Your task to perform on an android device: uninstall "Google News" Image 0: 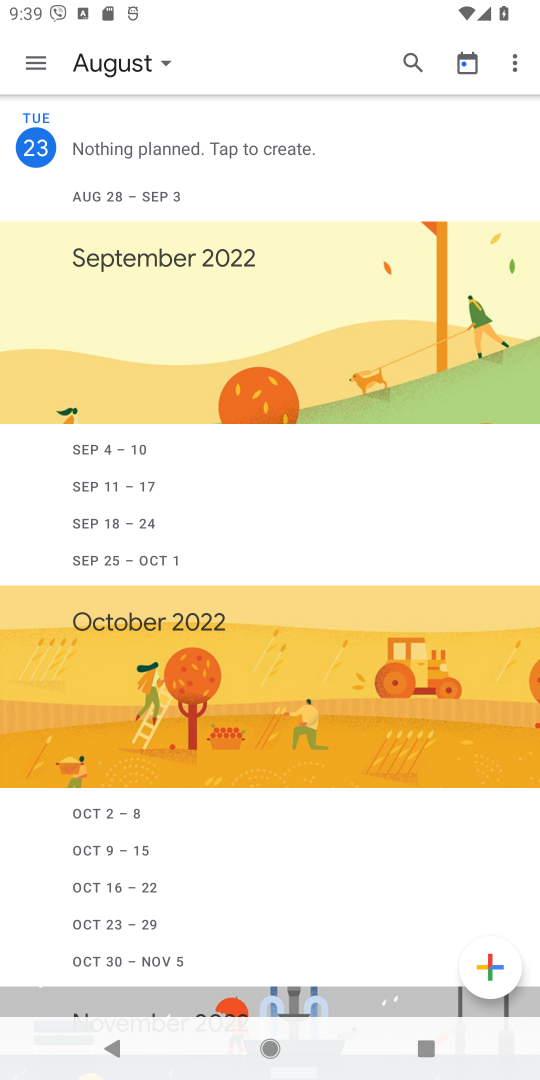
Step 0: press home button
Your task to perform on an android device: uninstall "Google News" Image 1: 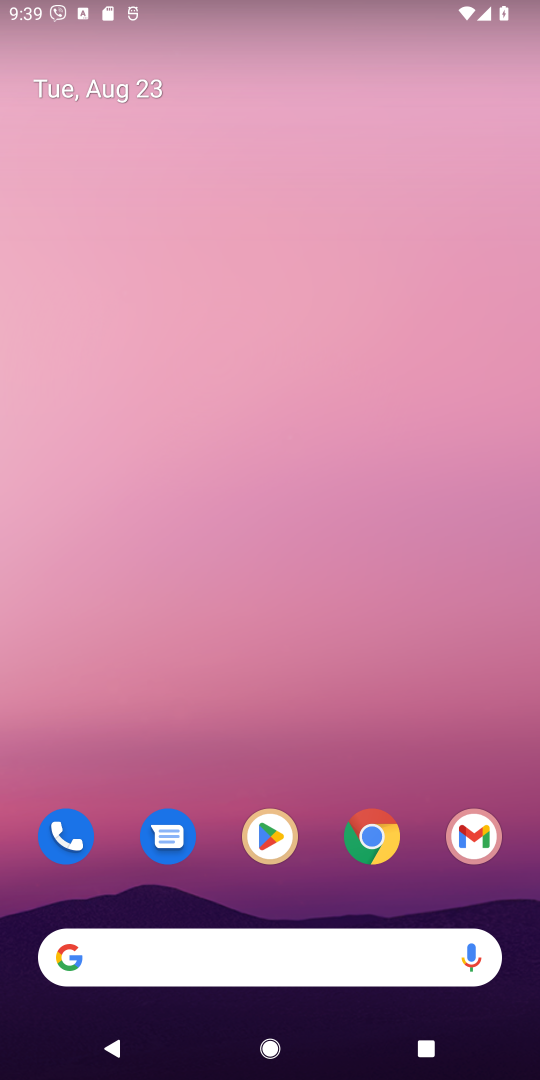
Step 1: click (266, 833)
Your task to perform on an android device: uninstall "Google News" Image 2: 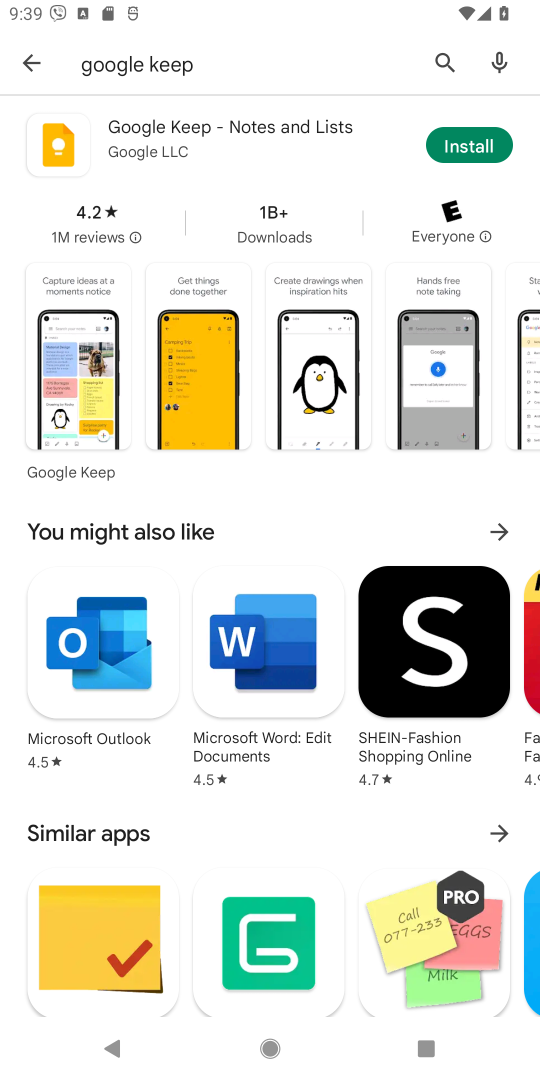
Step 2: click (446, 62)
Your task to perform on an android device: uninstall "Google News" Image 3: 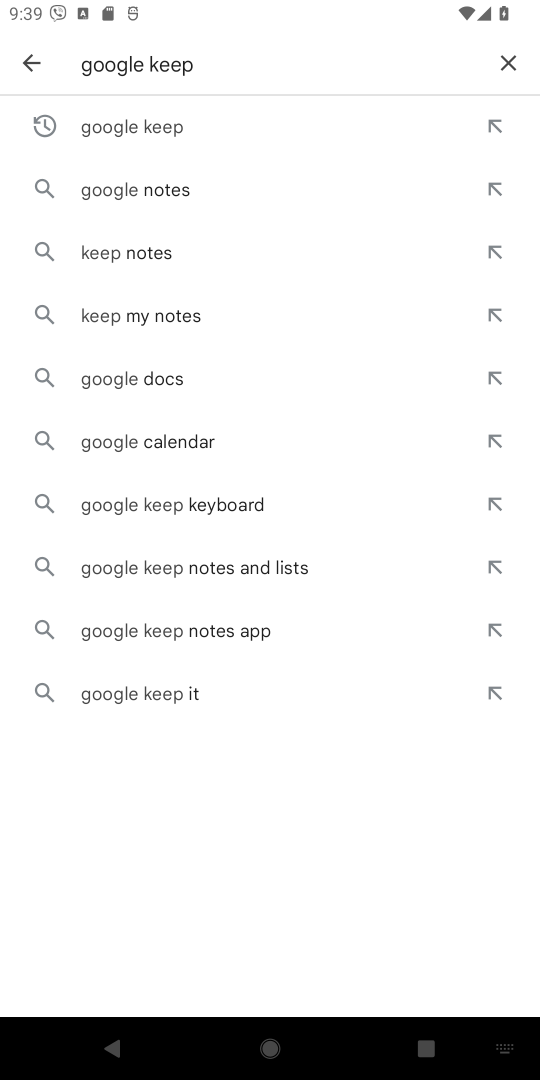
Step 3: click (514, 65)
Your task to perform on an android device: uninstall "Google News" Image 4: 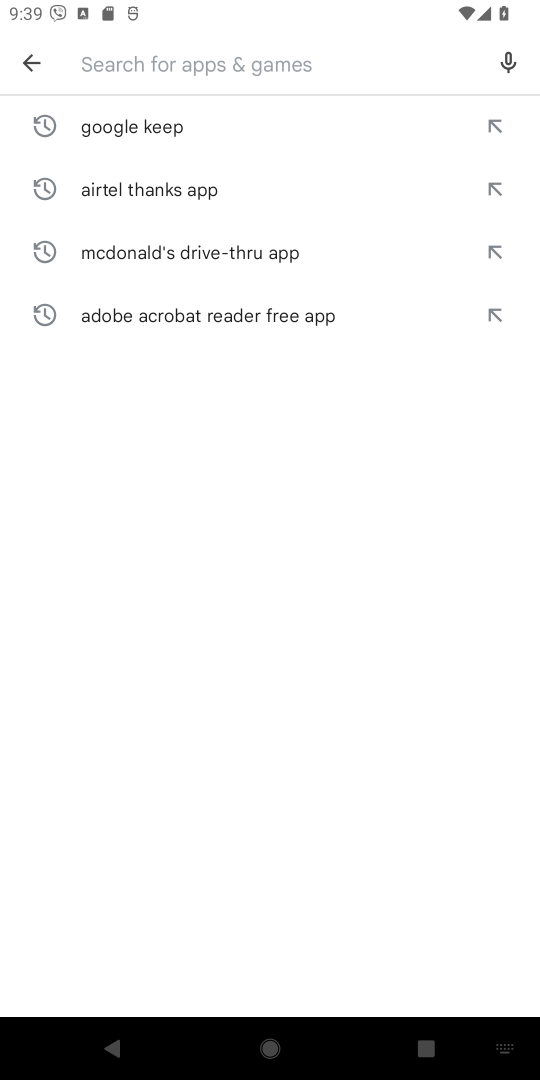
Step 4: type "Google News"
Your task to perform on an android device: uninstall "Google News" Image 5: 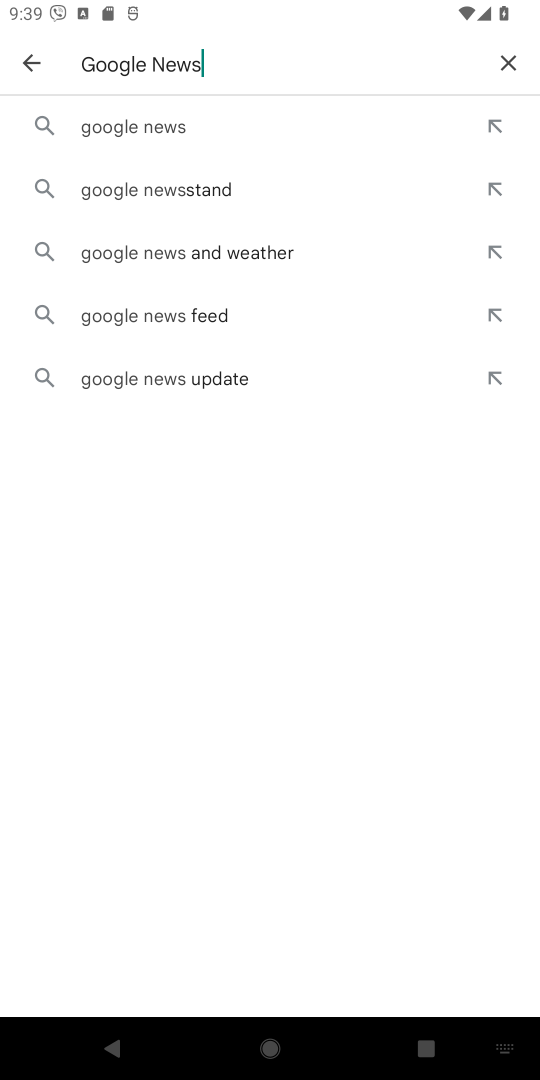
Step 5: click (109, 128)
Your task to perform on an android device: uninstall "Google News" Image 6: 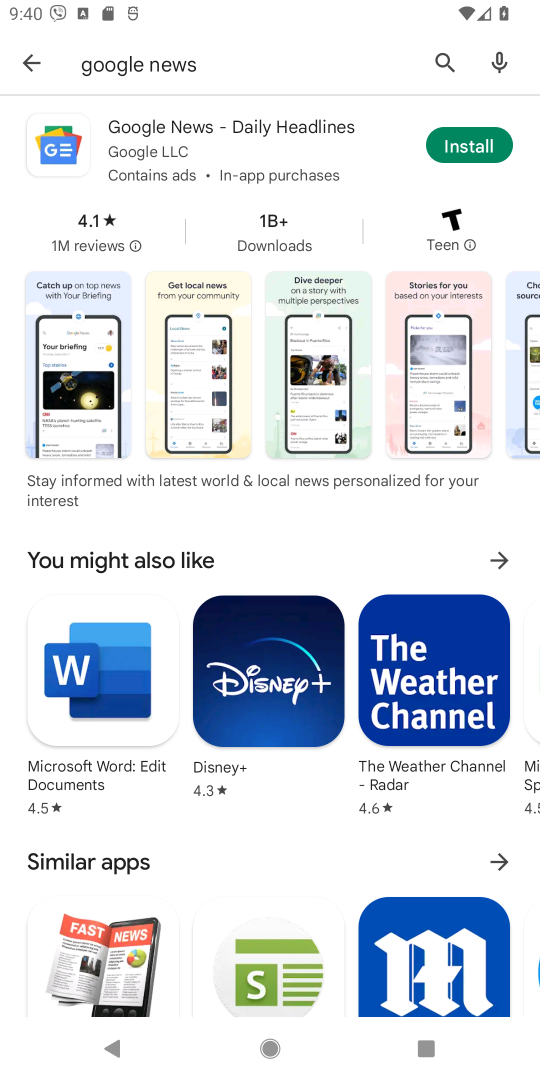
Step 6: task complete